Your task to perform on an android device: Open Google Image 0: 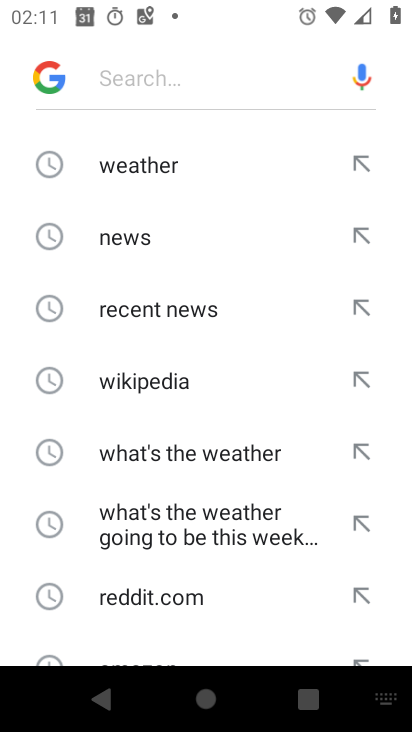
Step 0: task complete